Your task to perform on an android device: Open Google Chrome and click the shortcut for Amazon.com Image 0: 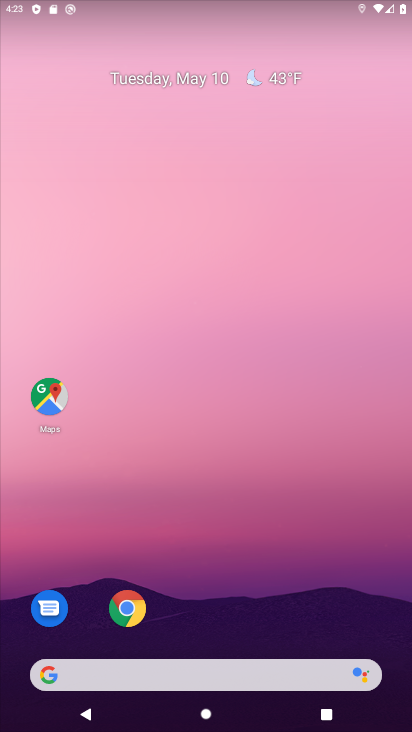
Step 0: click (128, 598)
Your task to perform on an android device: Open Google Chrome and click the shortcut for Amazon.com Image 1: 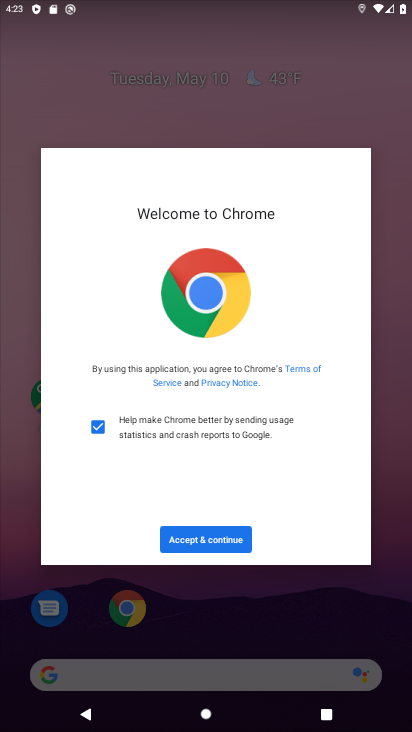
Step 1: click (189, 535)
Your task to perform on an android device: Open Google Chrome and click the shortcut for Amazon.com Image 2: 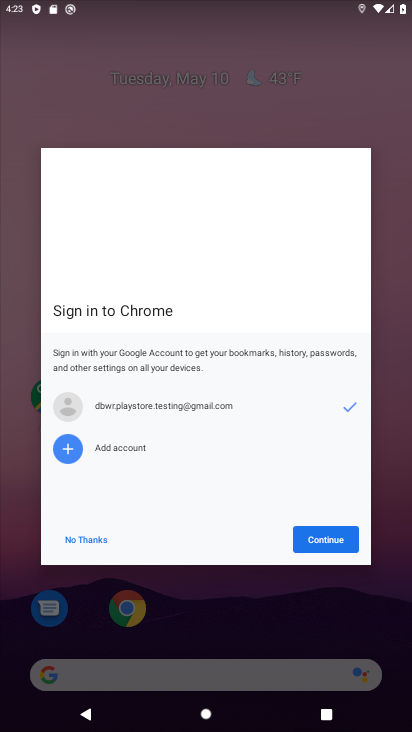
Step 2: click (324, 523)
Your task to perform on an android device: Open Google Chrome and click the shortcut for Amazon.com Image 3: 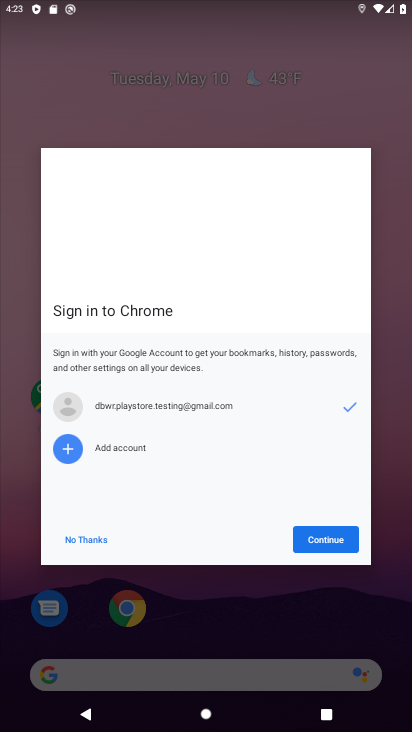
Step 3: click (326, 538)
Your task to perform on an android device: Open Google Chrome and click the shortcut for Amazon.com Image 4: 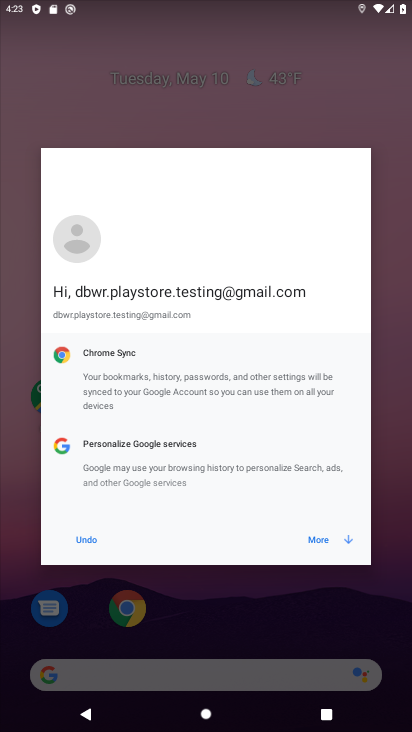
Step 4: click (333, 543)
Your task to perform on an android device: Open Google Chrome and click the shortcut for Amazon.com Image 5: 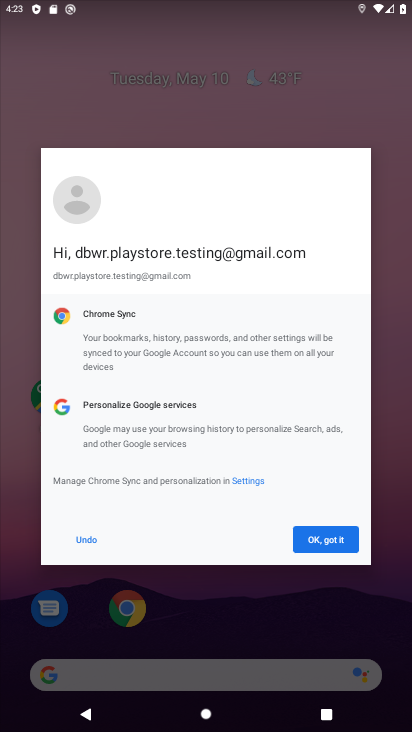
Step 5: click (334, 540)
Your task to perform on an android device: Open Google Chrome and click the shortcut for Amazon.com Image 6: 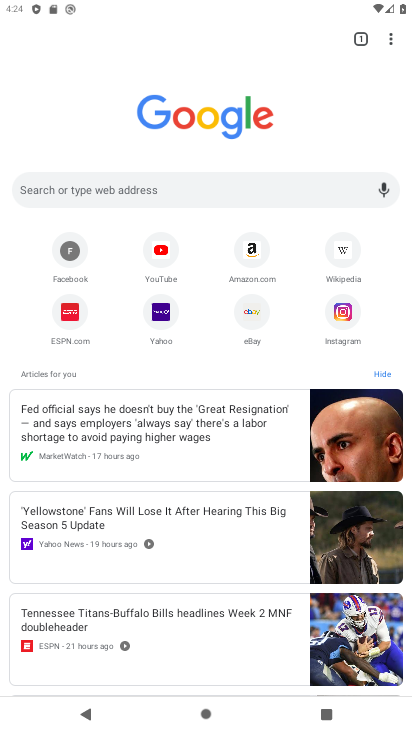
Step 6: click (258, 240)
Your task to perform on an android device: Open Google Chrome and click the shortcut for Amazon.com Image 7: 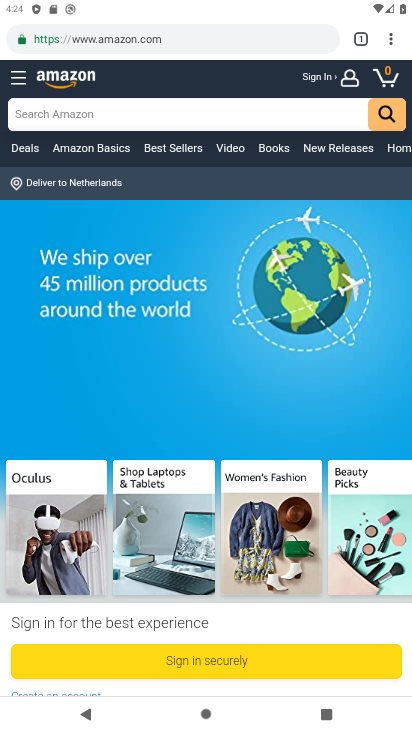
Step 7: task complete